Your task to perform on an android device: Open the Play Movies app and select the watchlist tab. Image 0: 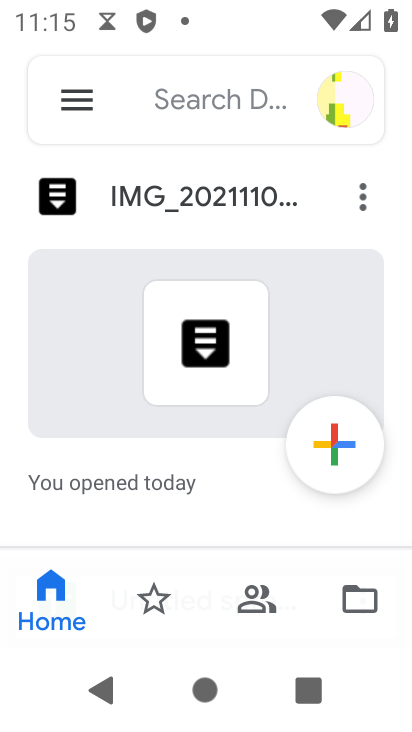
Step 0: press home button
Your task to perform on an android device: Open the Play Movies app and select the watchlist tab. Image 1: 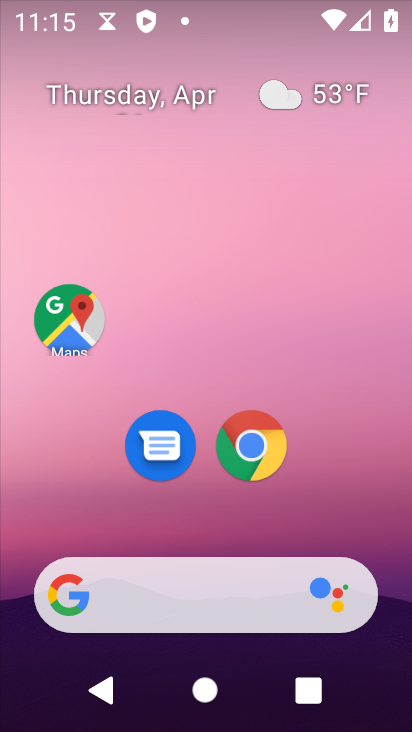
Step 1: drag from (194, 606) to (295, 85)
Your task to perform on an android device: Open the Play Movies app and select the watchlist tab. Image 2: 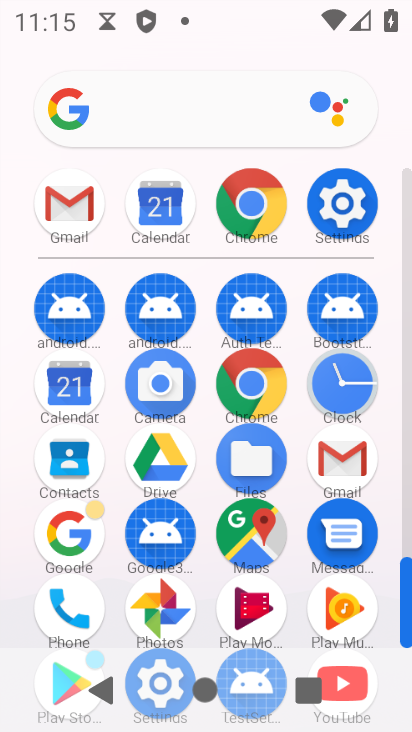
Step 2: click (241, 591)
Your task to perform on an android device: Open the Play Movies app and select the watchlist tab. Image 3: 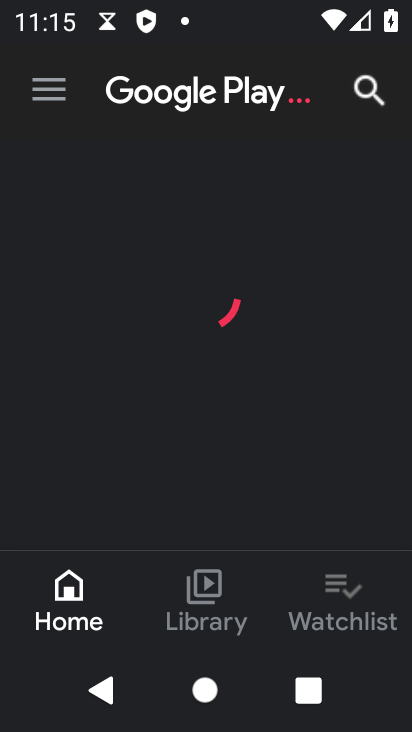
Step 3: click (336, 602)
Your task to perform on an android device: Open the Play Movies app and select the watchlist tab. Image 4: 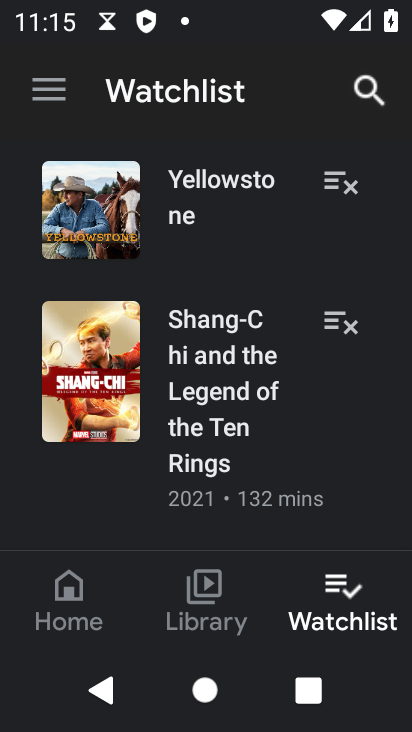
Step 4: task complete